Your task to perform on an android device: turn notification dots on Image 0: 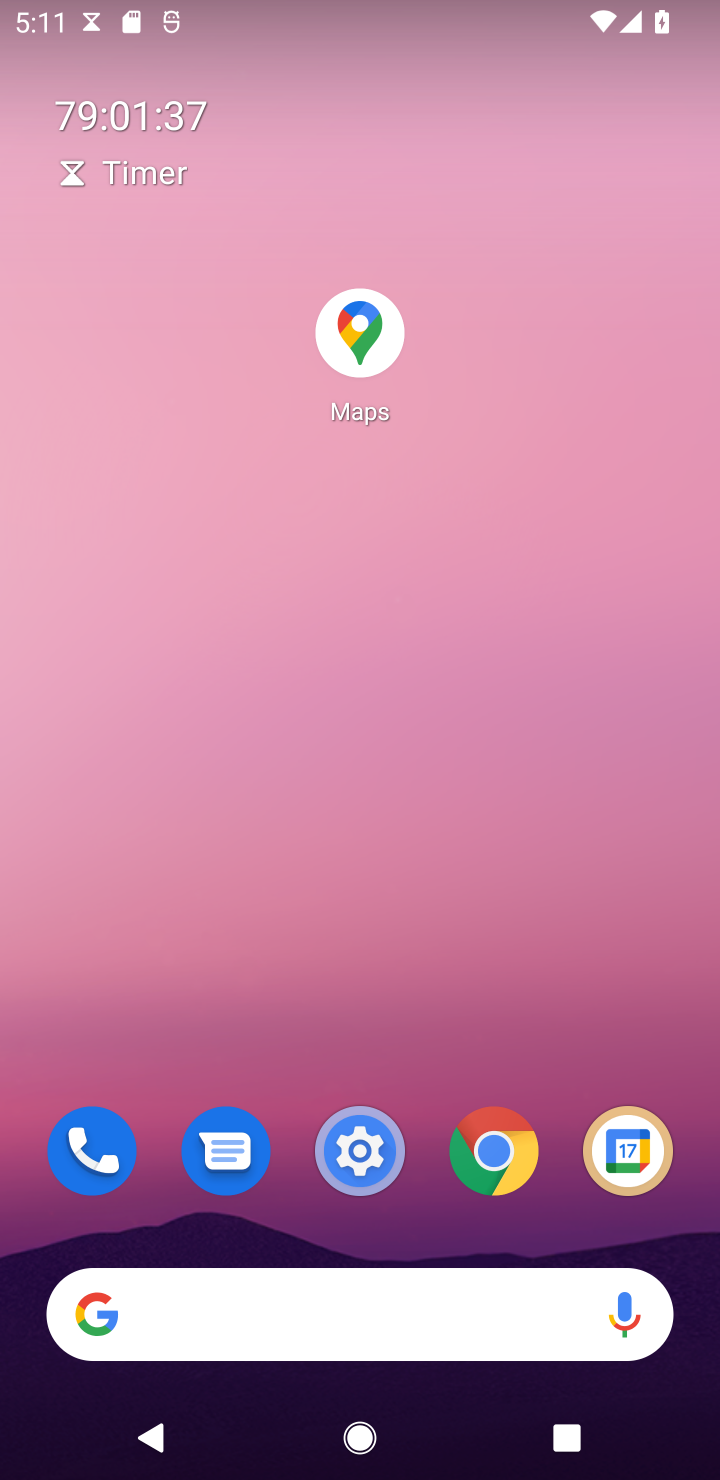
Step 0: drag from (361, 1231) to (464, 52)
Your task to perform on an android device: turn notification dots on Image 1: 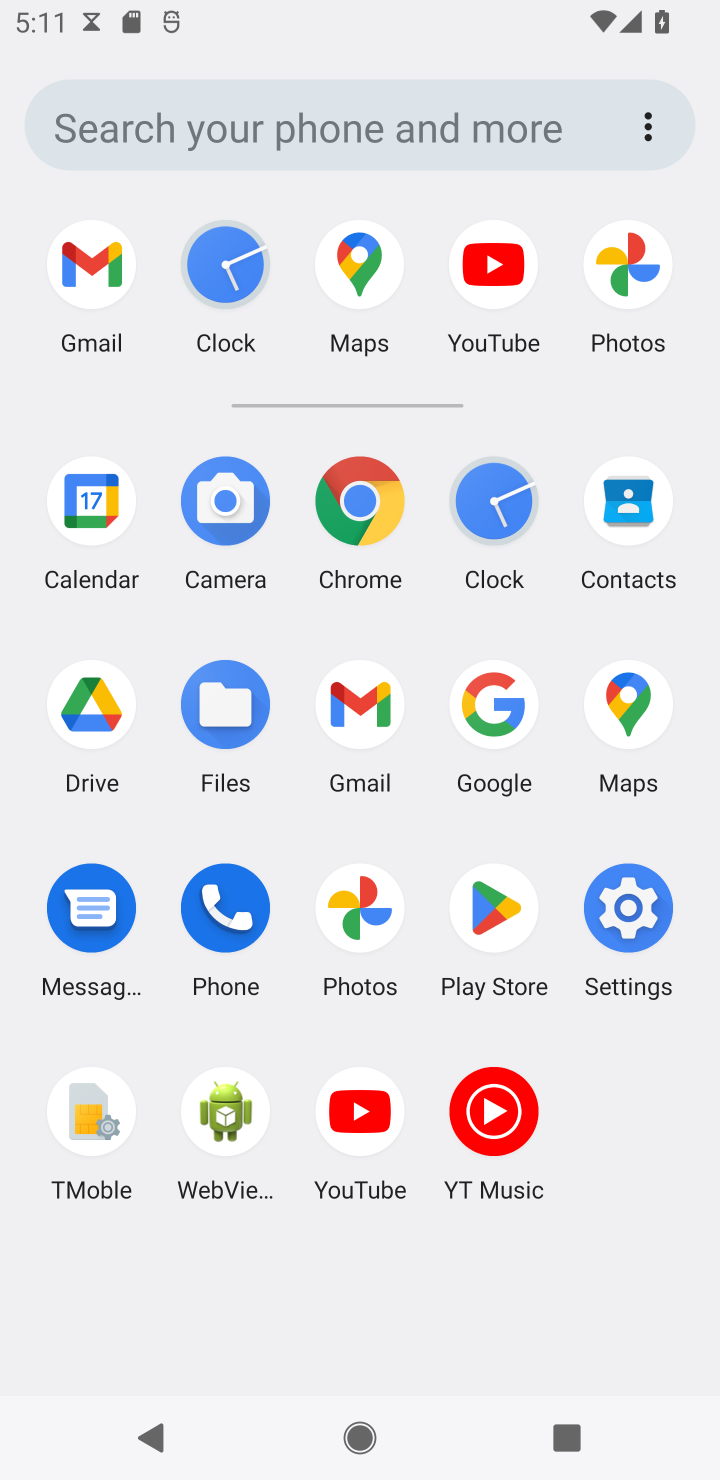
Step 1: click (619, 908)
Your task to perform on an android device: turn notification dots on Image 2: 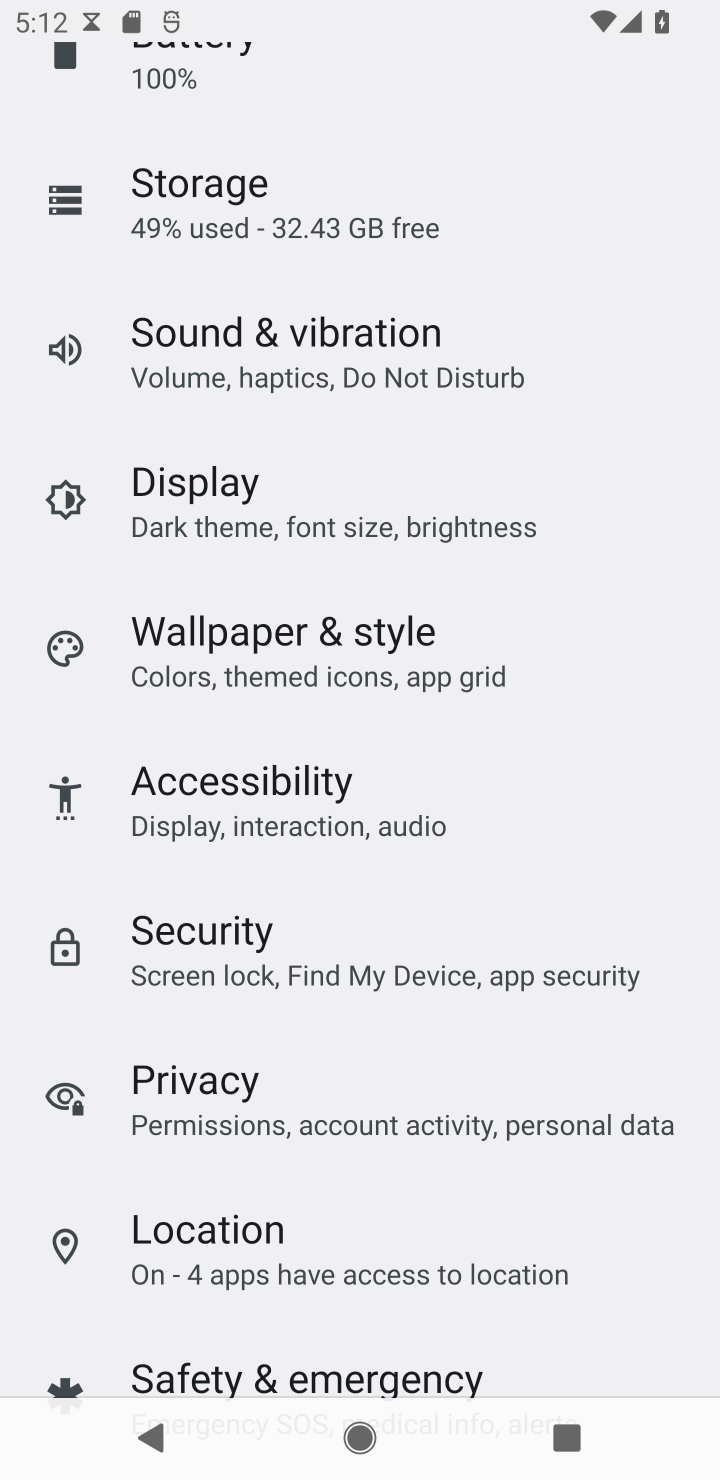
Step 2: drag from (312, 487) to (327, 1443)
Your task to perform on an android device: turn notification dots on Image 3: 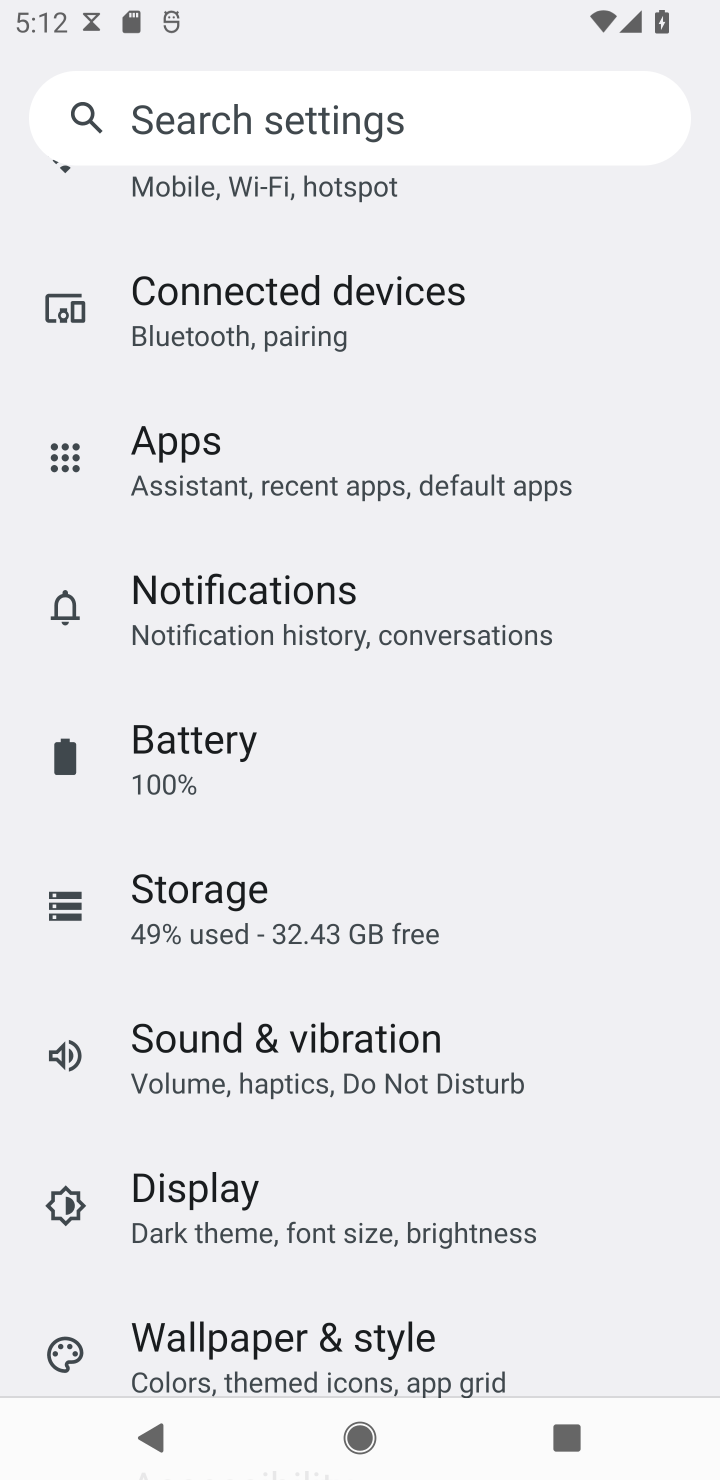
Step 3: click (312, 113)
Your task to perform on an android device: turn notification dots on Image 4: 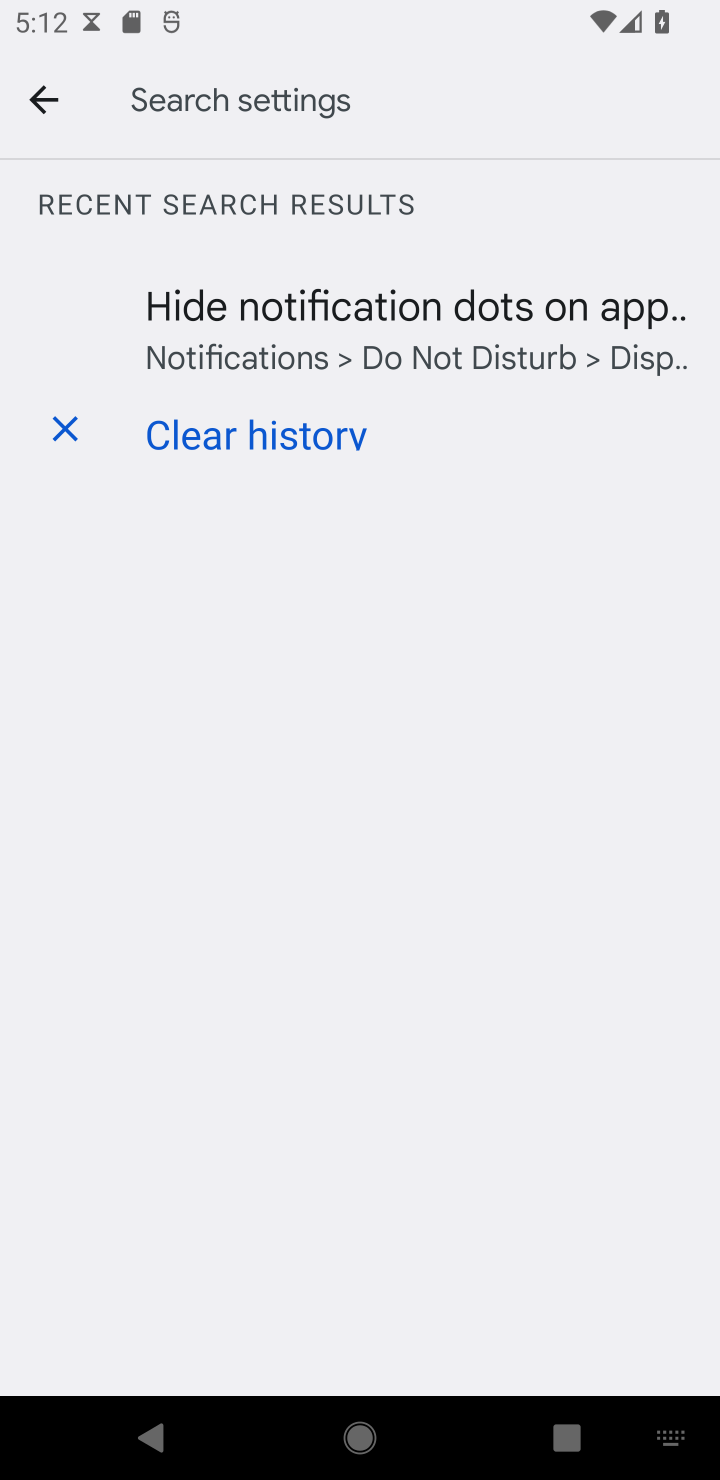
Step 4: click (449, 91)
Your task to perform on an android device: turn notification dots on Image 5: 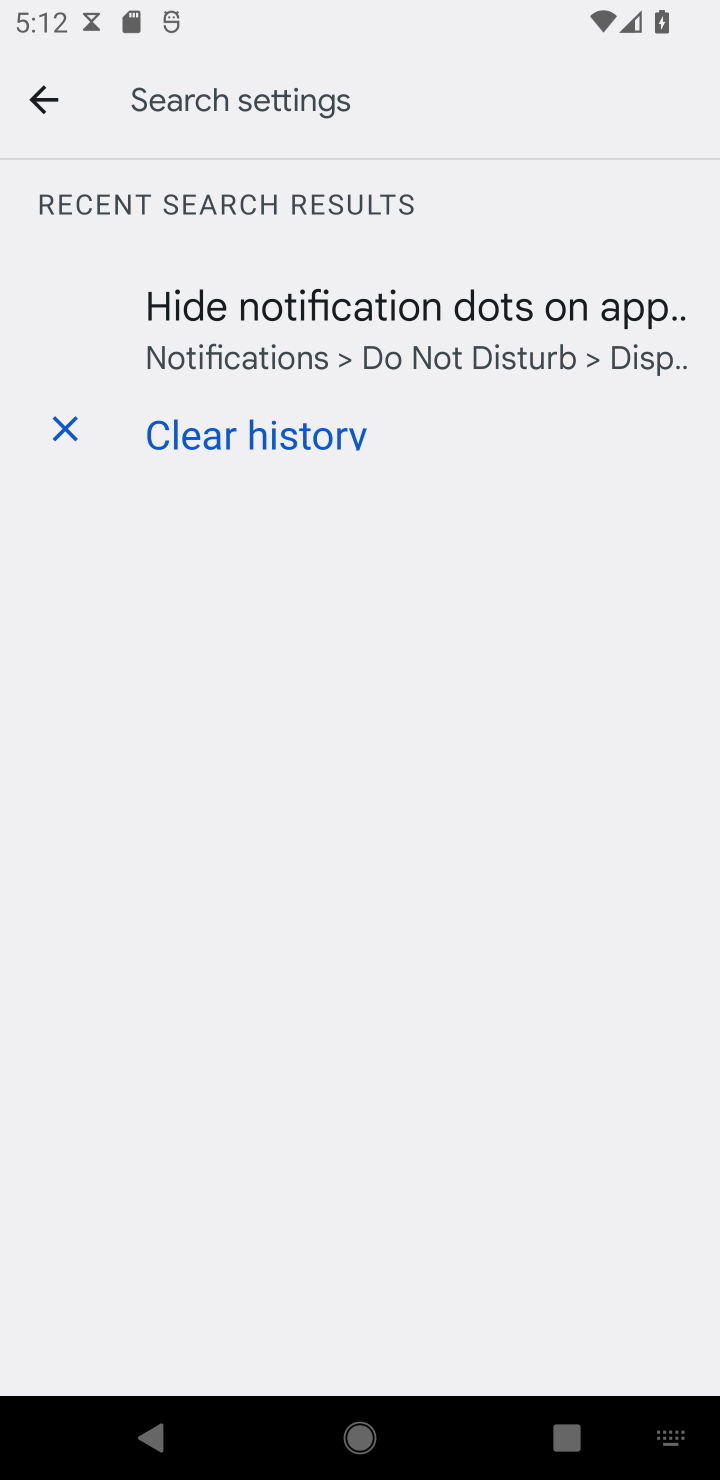
Step 5: type " notification dots "
Your task to perform on an android device: turn notification dots on Image 6: 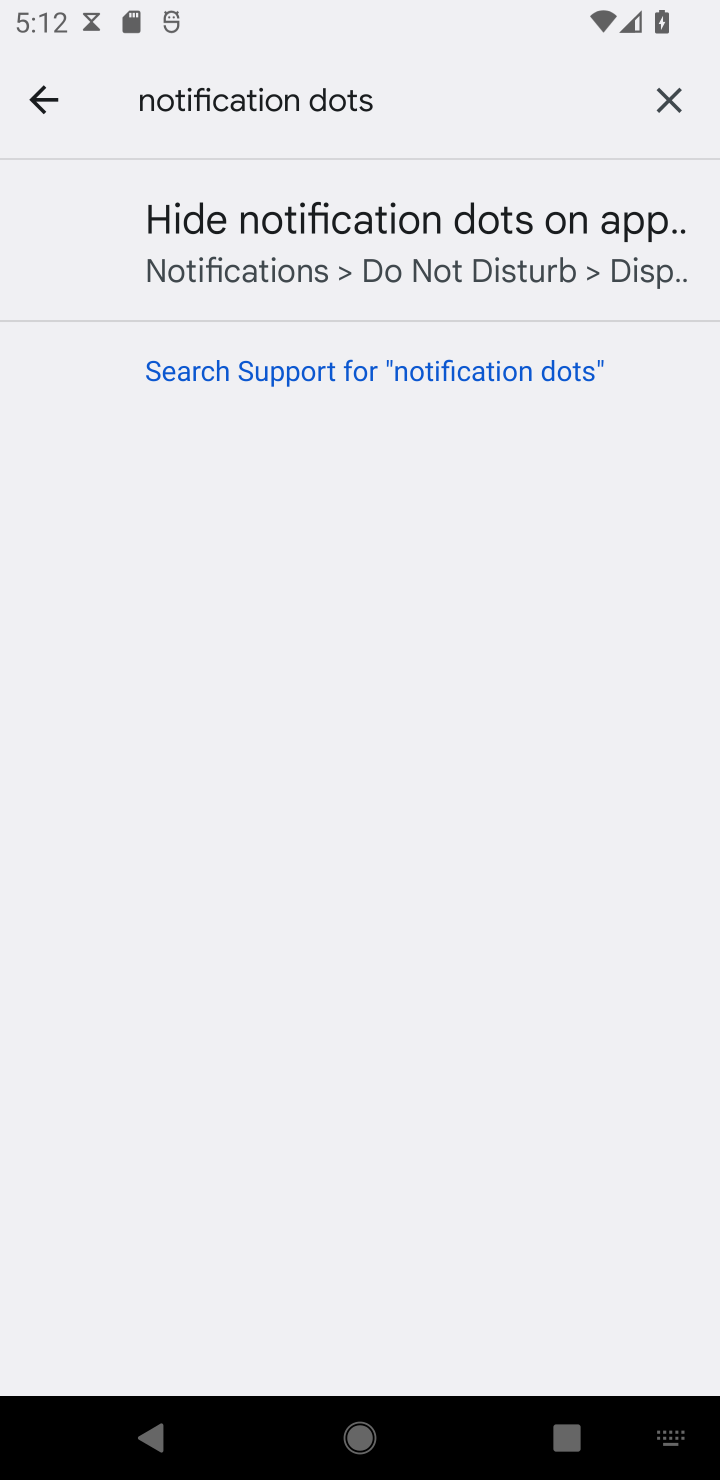
Step 6: click (327, 213)
Your task to perform on an android device: turn notification dots on Image 7: 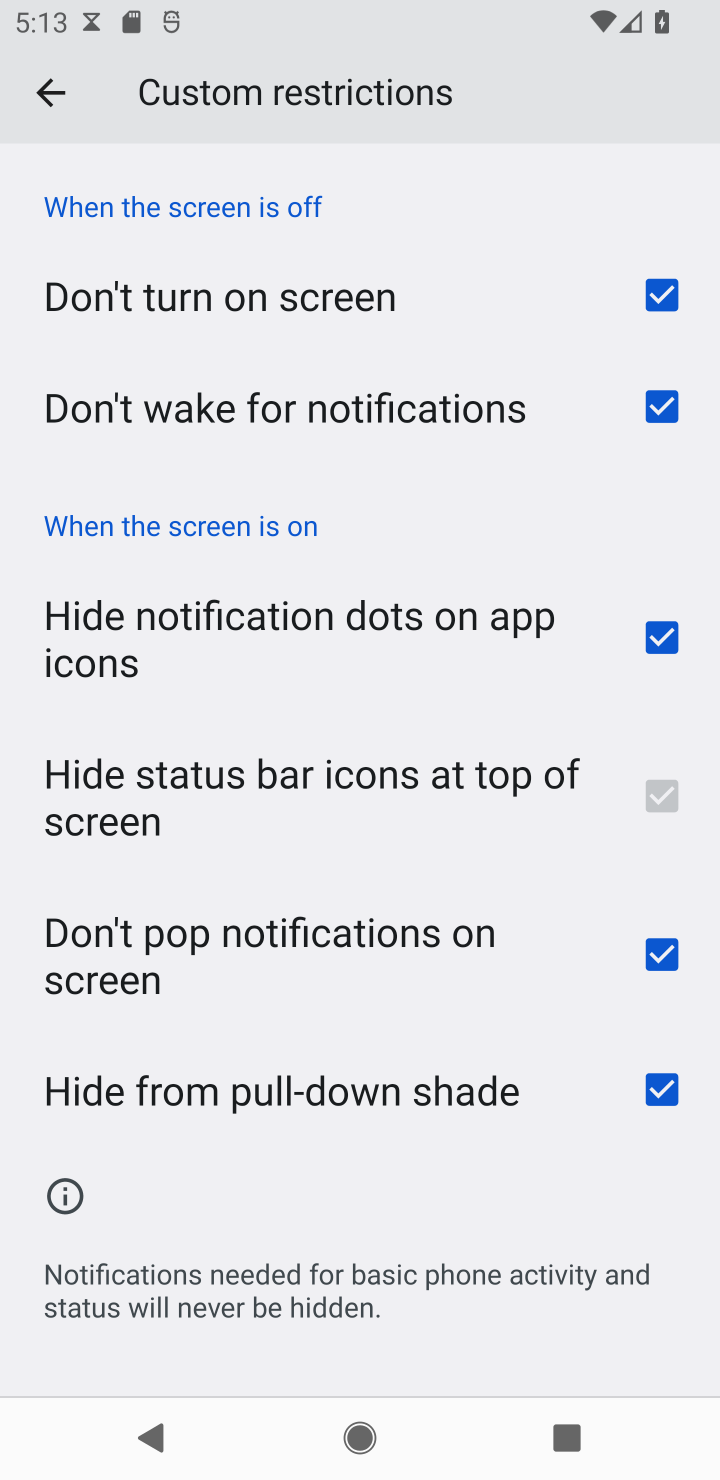
Step 7: task complete